Your task to perform on an android device: open a bookmark in the chrome app Image 0: 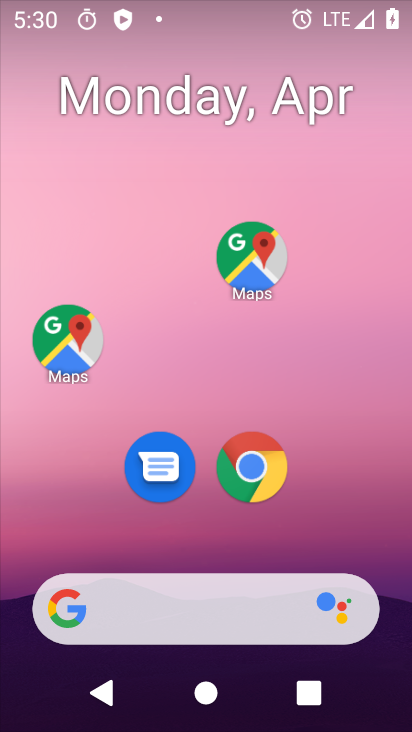
Step 0: drag from (278, 565) to (342, 0)
Your task to perform on an android device: open a bookmark in the chrome app Image 1: 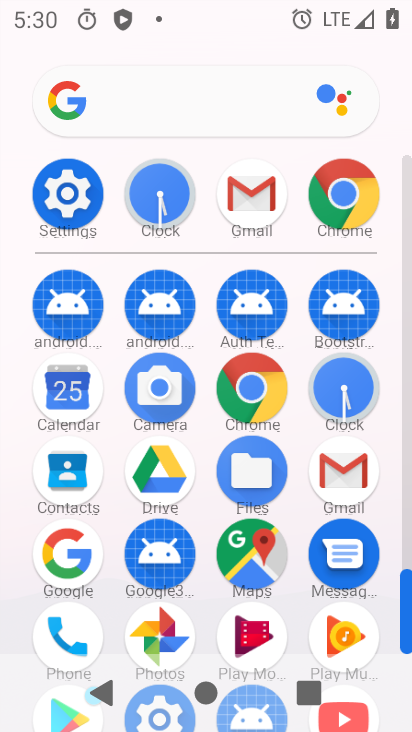
Step 1: click (278, 393)
Your task to perform on an android device: open a bookmark in the chrome app Image 2: 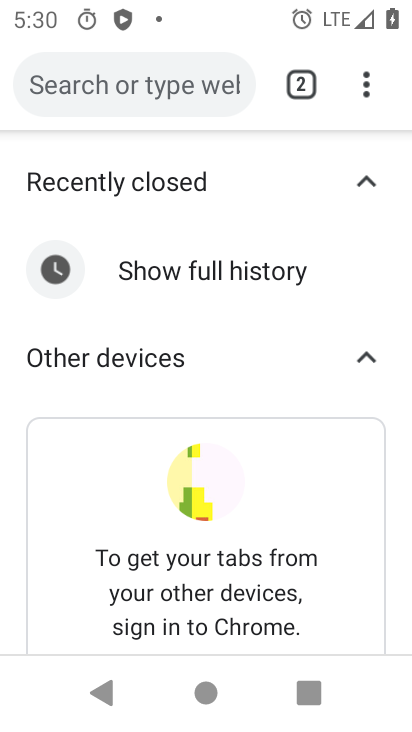
Step 2: task complete